Your task to perform on an android device: Open battery settings Image 0: 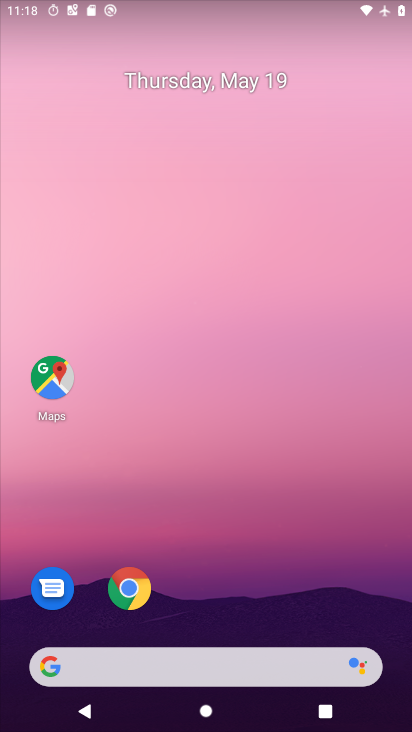
Step 0: drag from (161, 669) to (273, 178)
Your task to perform on an android device: Open battery settings Image 1: 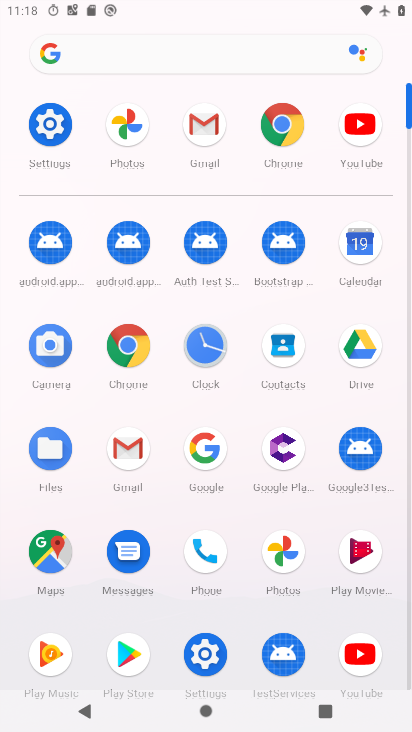
Step 1: click (52, 131)
Your task to perform on an android device: Open battery settings Image 2: 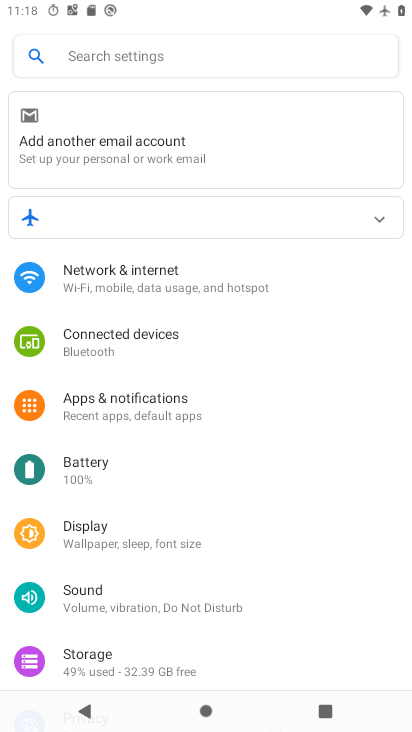
Step 2: click (139, 464)
Your task to perform on an android device: Open battery settings Image 3: 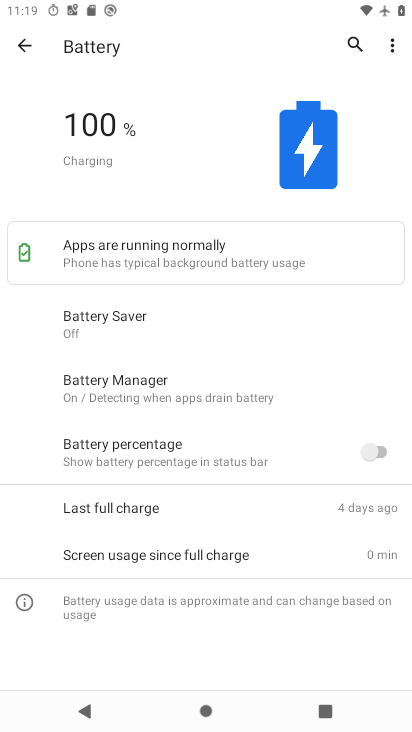
Step 3: task complete